Your task to perform on an android device: open app "Calculator" Image 0: 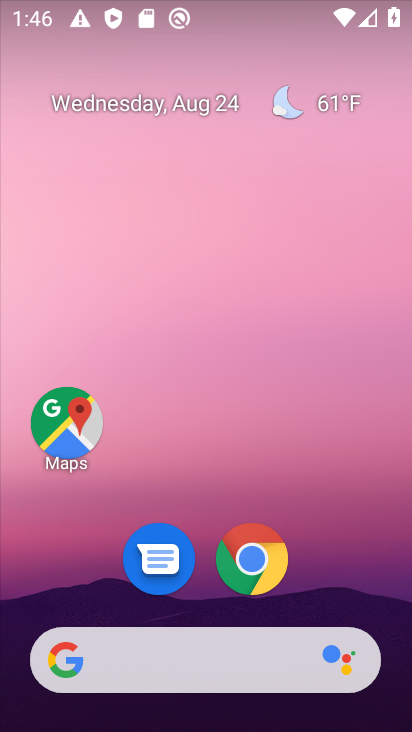
Step 0: drag from (215, 493) to (215, 251)
Your task to perform on an android device: open app "Calculator" Image 1: 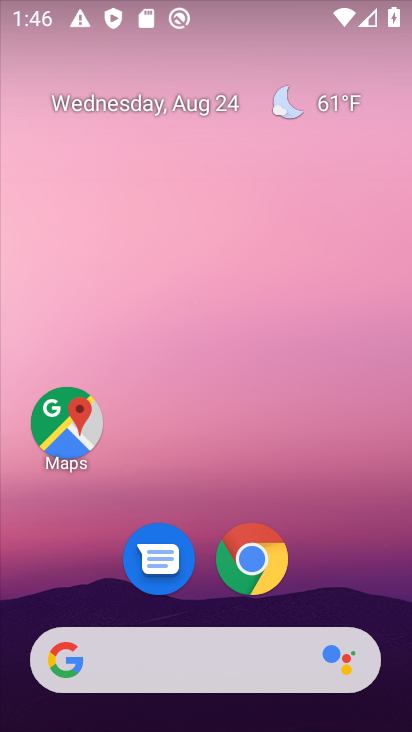
Step 1: drag from (185, 628) to (185, 191)
Your task to perform on an android device: open app "Calculator" Image 2: 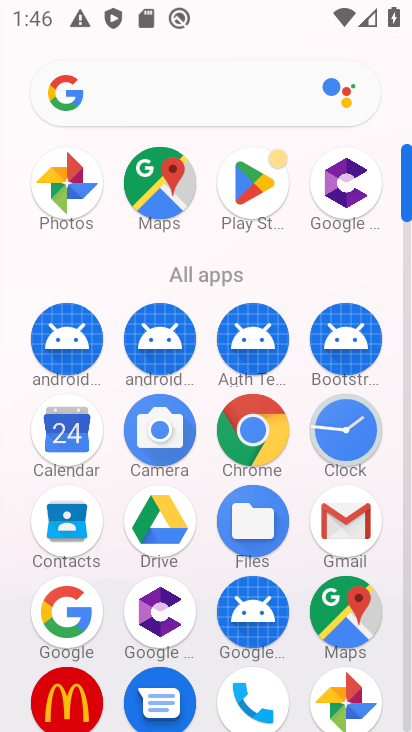
Step 2: click (253, 187)
Your task to perform on an android device: open app "Calculator" Image 3: 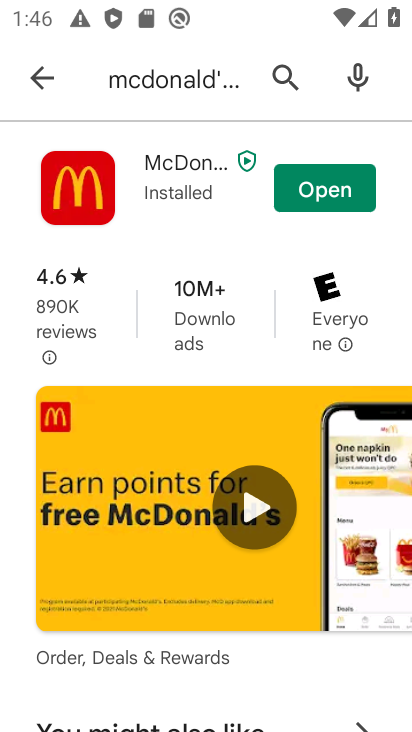
Step 3: click (277, 76)
Your task to perform on an android device: open app "Calculator" Image 4: 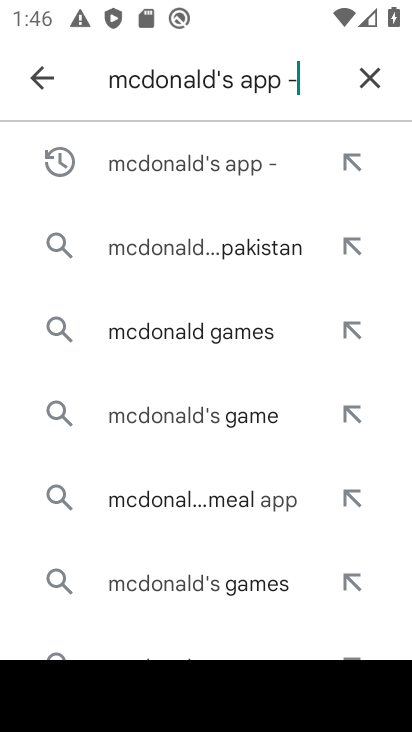
Step 4: click (372, 80)
Your task to perform on an android device: open app "Calculator" Image 5: 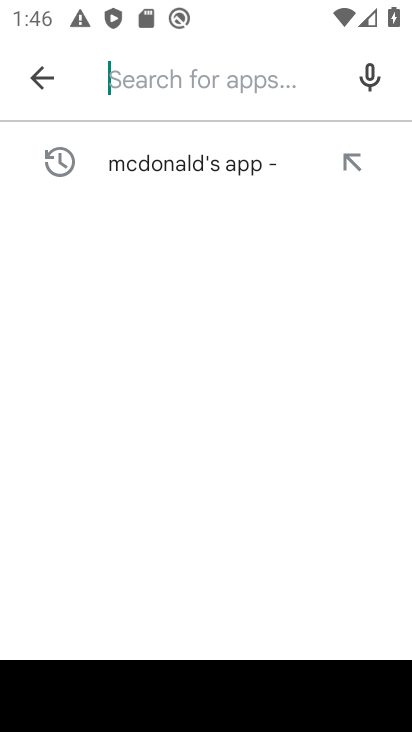
Step 5: type "Calculator"
Your task to perform on an android device: open app "Calculator" Image 6: 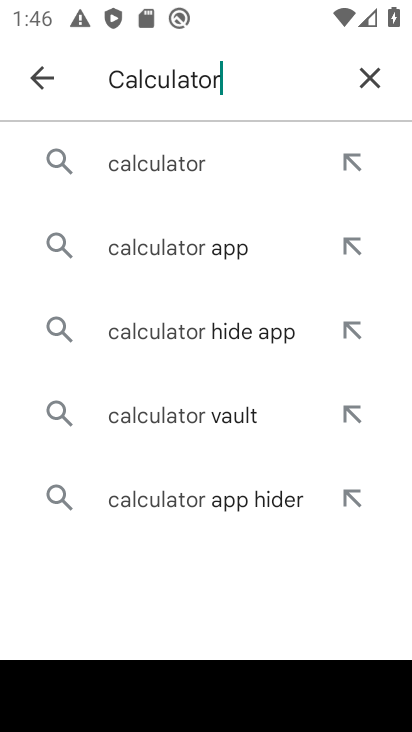
Step 6: click (157, 162)
Your task to perform on an android device: open app "Calculator" Image 7: 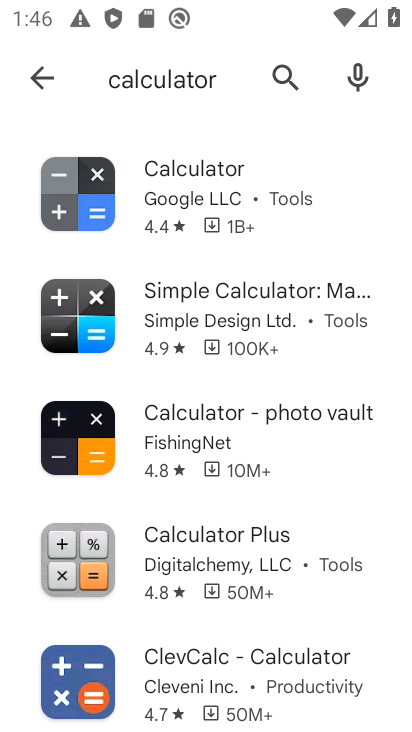
Step 7: click (174, 205)
Your task to perform on an android device: open app "Calculator" Image 8: 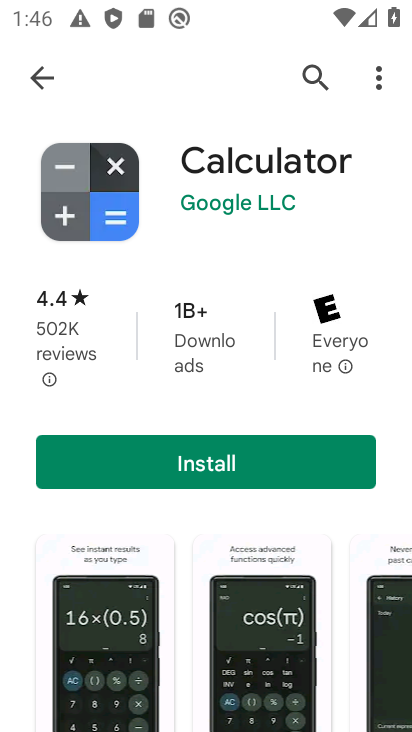
Step 8: click (262, 451)
Your task to perform on an android device: open app "Calculator" Image 9: 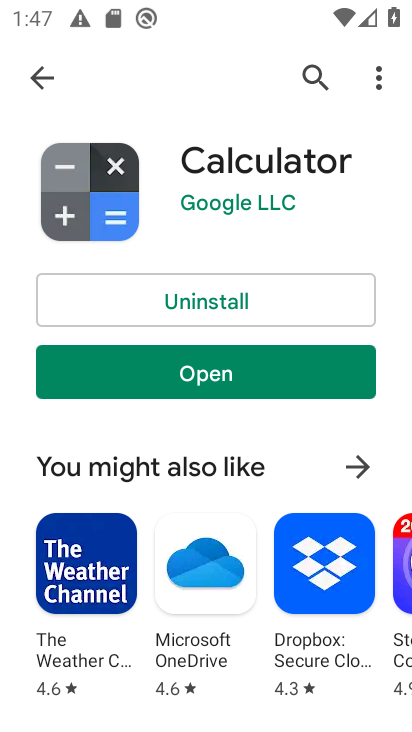
Step 9: click (237, 368)
Your task to perform on an android device: open app "Calculator" Image 10: 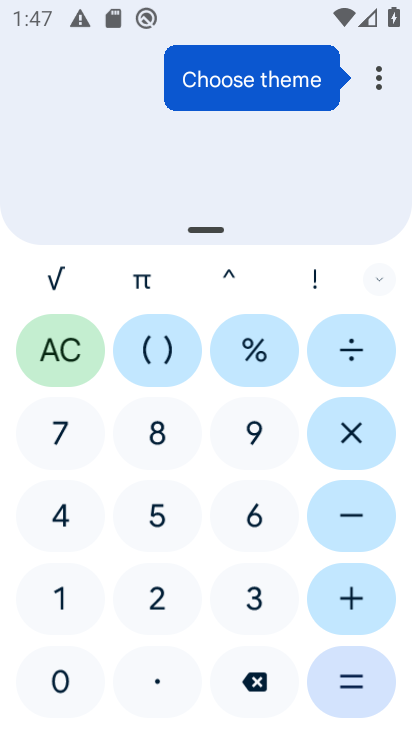
Step 10: task complete